Your task to perform on an android device: Check the news Image 0: 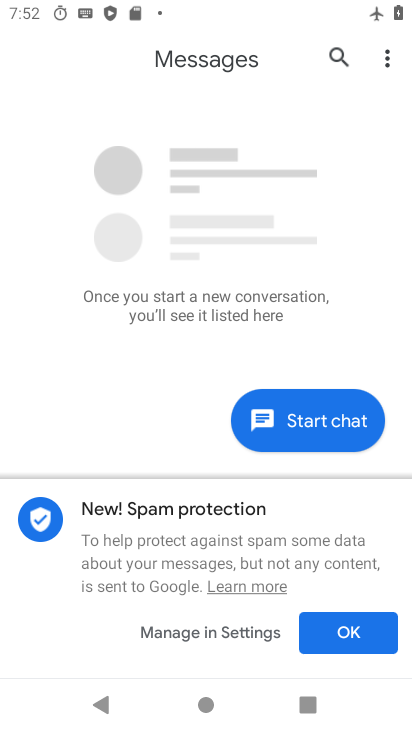
Step 0: press home button
Your task to perform on an android device: Check the news Image 1: 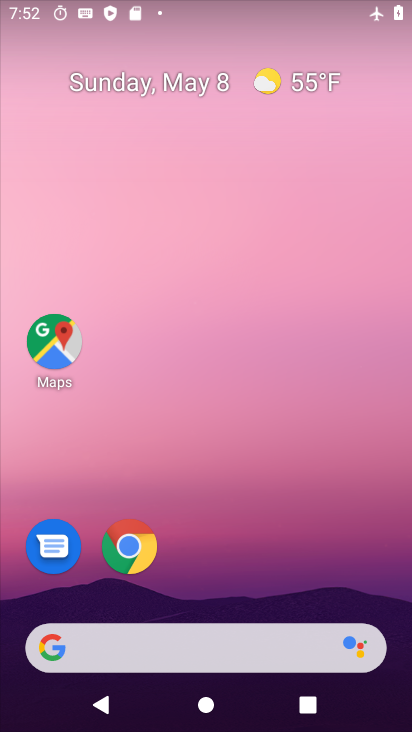
Step 1: click (156, 637)
Your task to perform on an android device: Check the news Image 2: 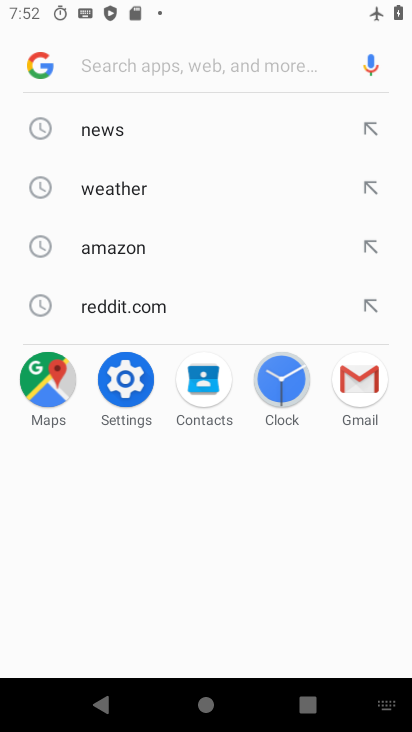
Step 2: click (101, 111)
Your task to perform on an android device: Check the news Image 3: 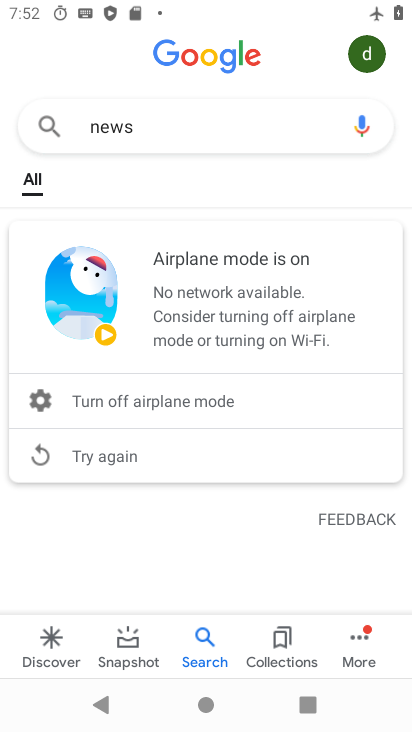
Step 3: task complete